Your task to perform on an android device: see sites visited before in the chrome app Image 0: 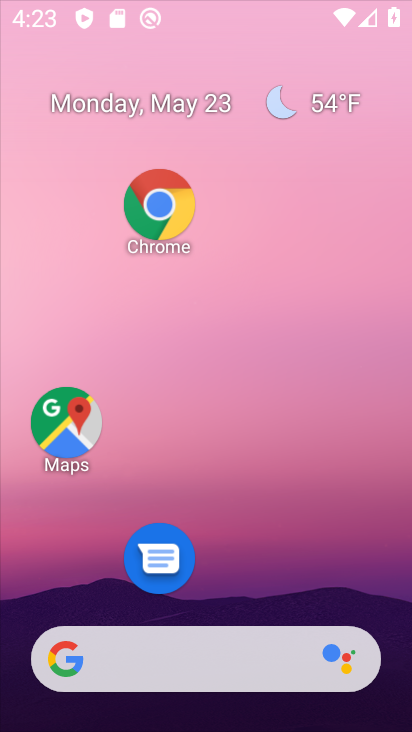
Step 0: click (214, 162)
Your task to perform on an android device: see sites visited before in the chrome app Image 1: 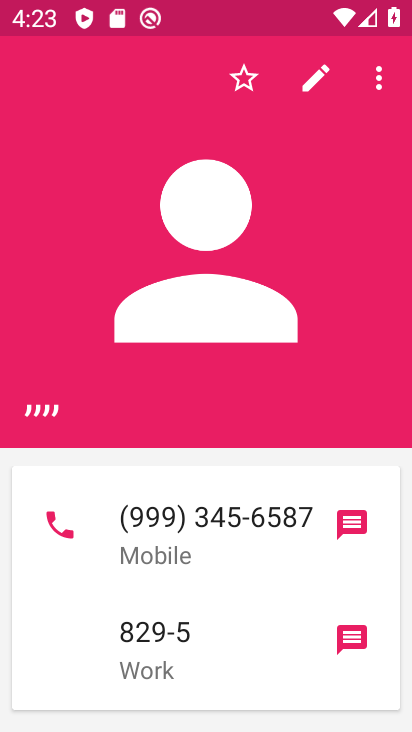
Step 1: press back button
Your task to perform on an android device: see sites visited before in the chrome app Image 2: 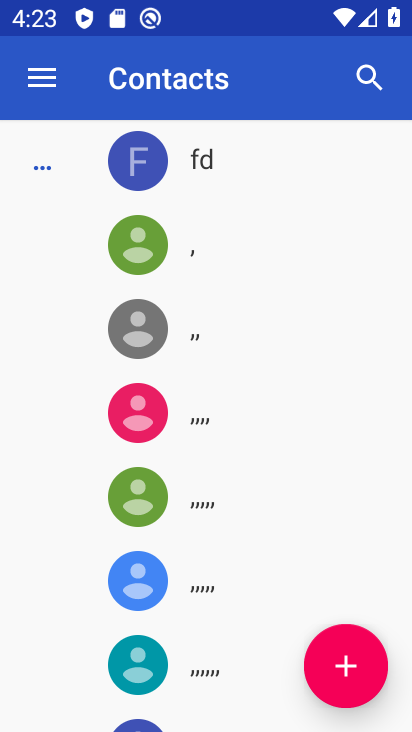
Step 2: press back button
Your task to perform on an android device: see sites visited before in the chrome app Image 3: 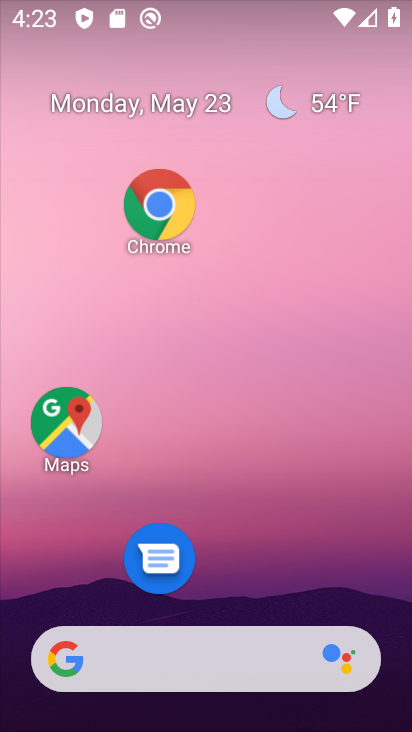
Step 3: drag from (269, 710) to (178, 75)
Your task to perform on an android device: see sites visited before in the chrome app Image 4: 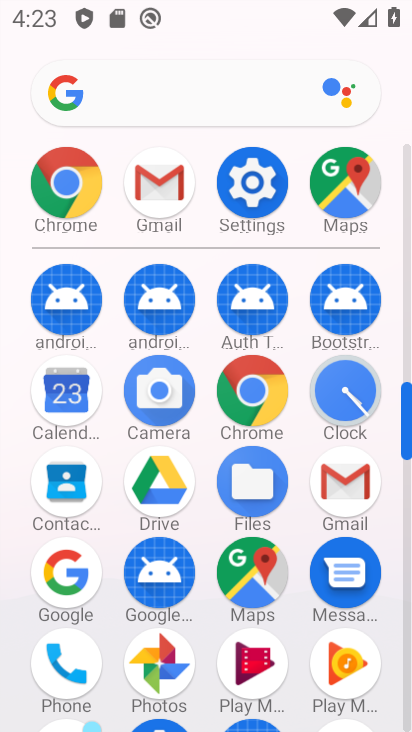
Step 4: click (74, 189)
Your task to perform on an android device: see sites visited before in the chrome app Image 5: 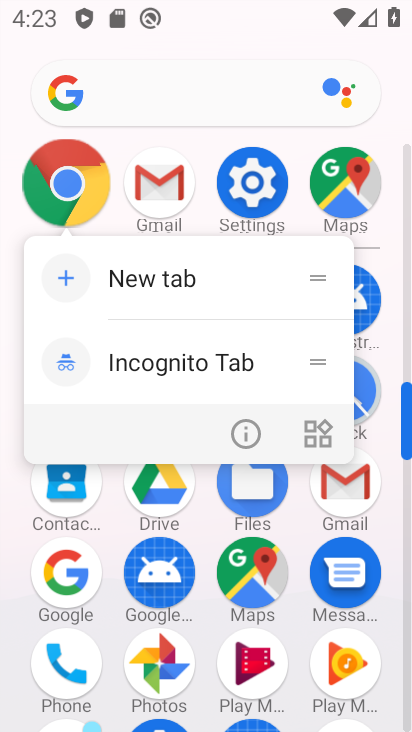
Step 5: click (74, 189)
Your task to perform on an android device: see sites visited before in the chrome app Image 6: 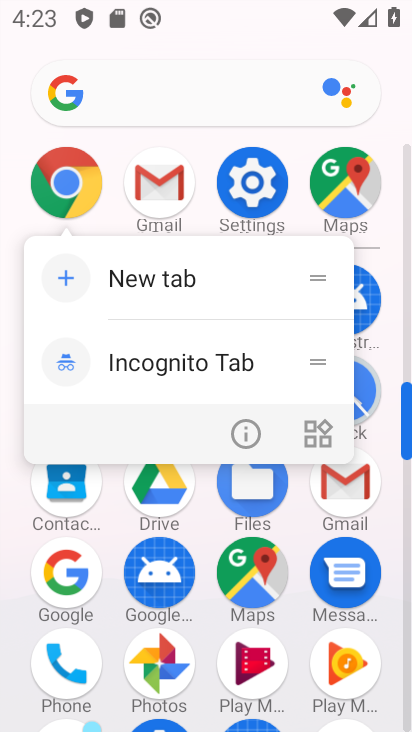
Step 6: click (74, 189)
Your task to perform on an android device: see sites visited before in the chrome app Image 7: 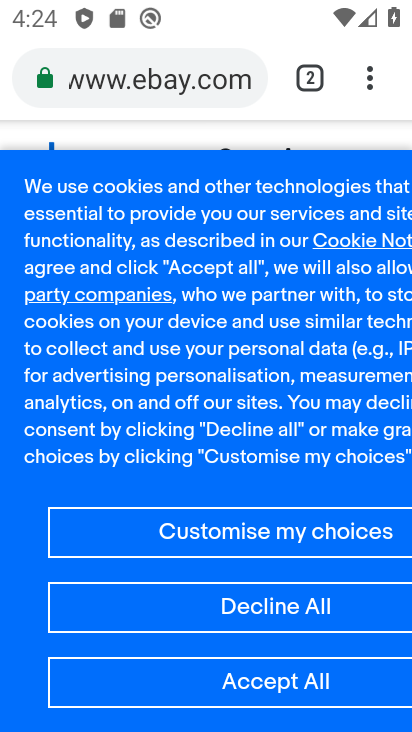
Step 7: press back button
Your task to perform on an android device: see sites visited before in the chrome app Image 8: 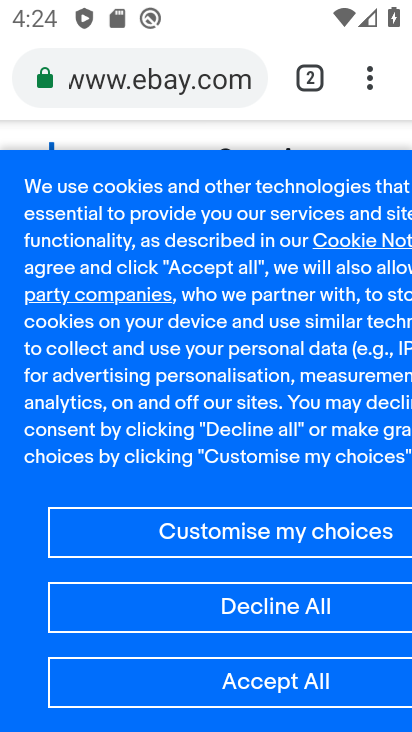
Step 8: press back button
Your task to perform on an android device: see sites visited before in the chrome app Image 9: 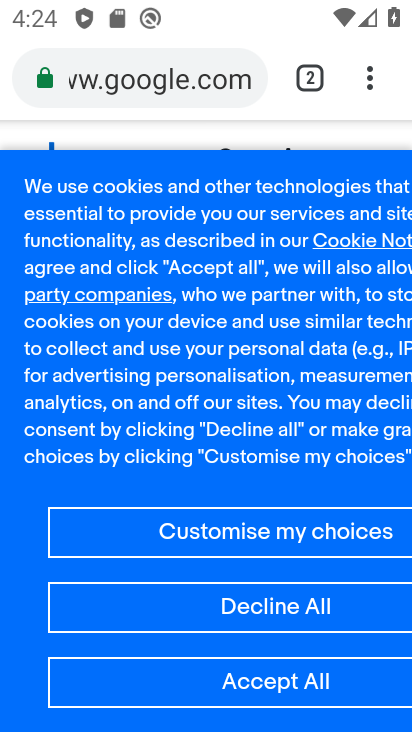
Step 9: press back button
Your task to perform on an android device: see sites visited before in the chrome app Image 10: 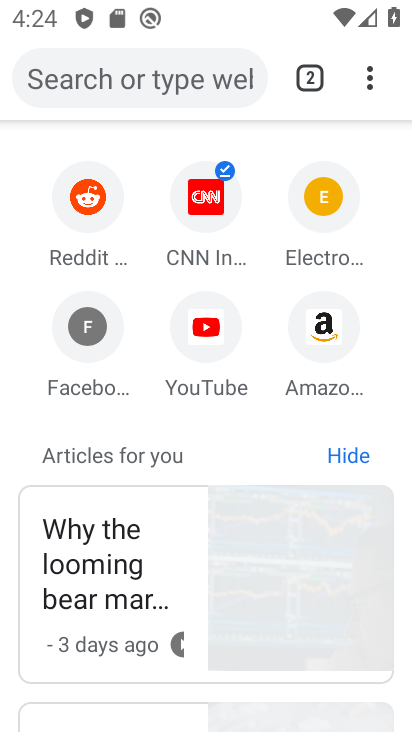
Step 10: press back button
Your task to perform on an android device: see sites visited before in the chrome app Image 11: 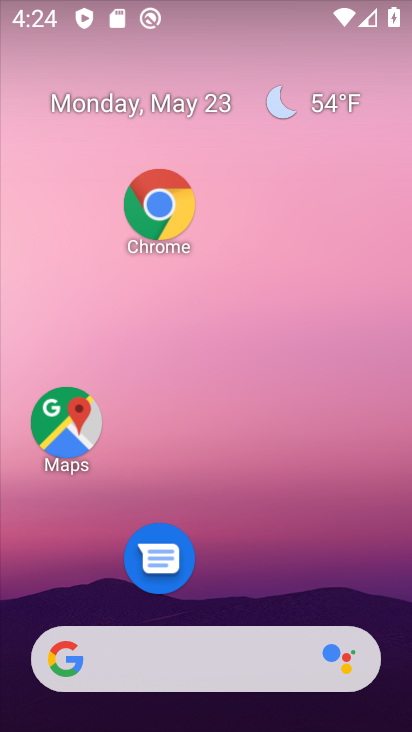
Step 11: drag from (282, 634) to (202, 87)
Your task to perform on an android device: see sites visited before in the chrome app Image 12: 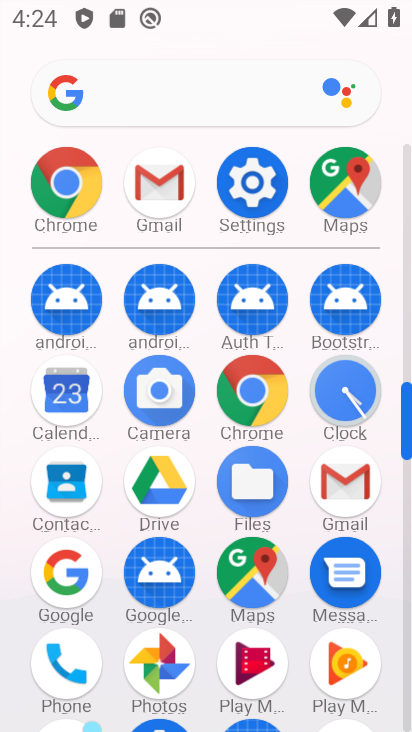
Step 12: click (80, 188)
Your task to perform on an android device: see sites visited before in the chrome app Image 13: 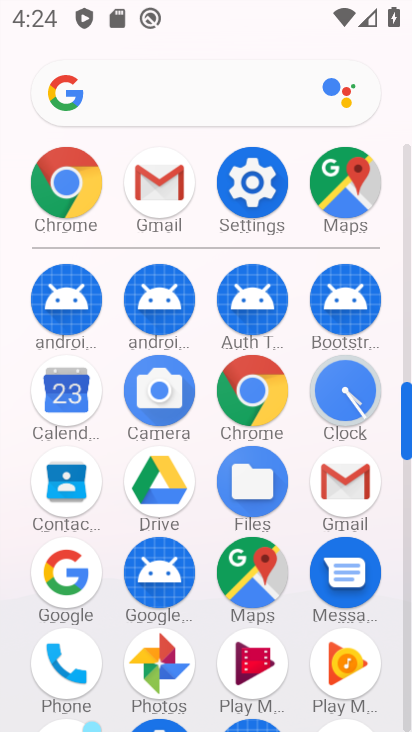
Step 13: click (77, 185)
Your task to perform on an android device: see sites visited before in the chrome app Image 14: 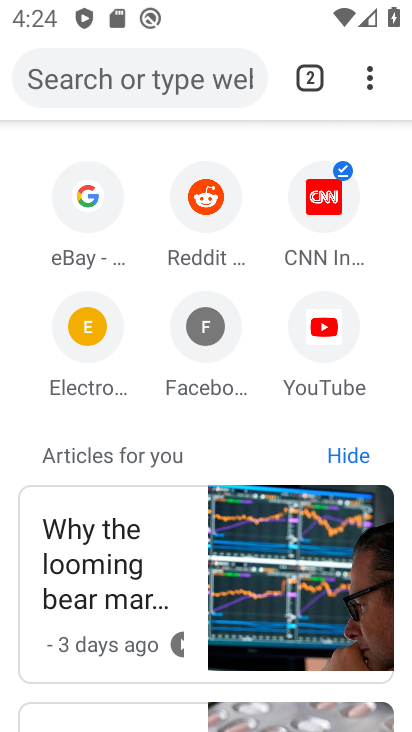
Step 14: drag from (371, 82) to (106, 333)
Your task to perform on an android device: see sites visited before in the chrome app Image 15: 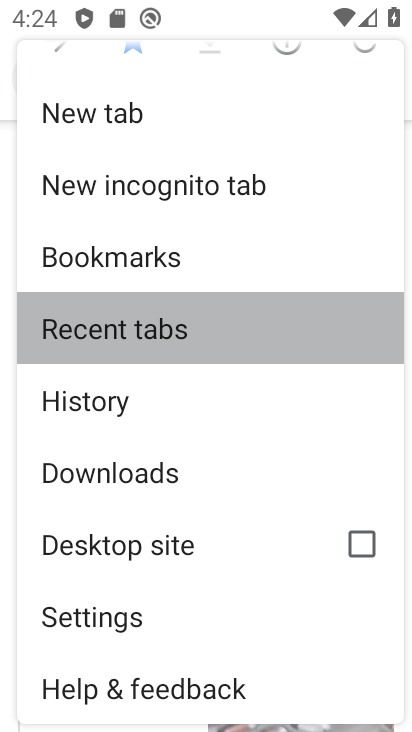
Step 15: click (106, 333)
Your task to perform on an android device: see sites visited before in the chrome app Image 16: 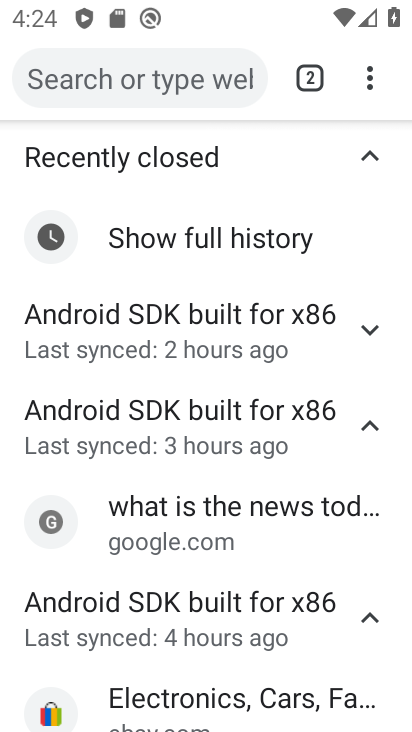
Step 16: task complete